Your task to perform on an android device: Open my contact list Image 0: 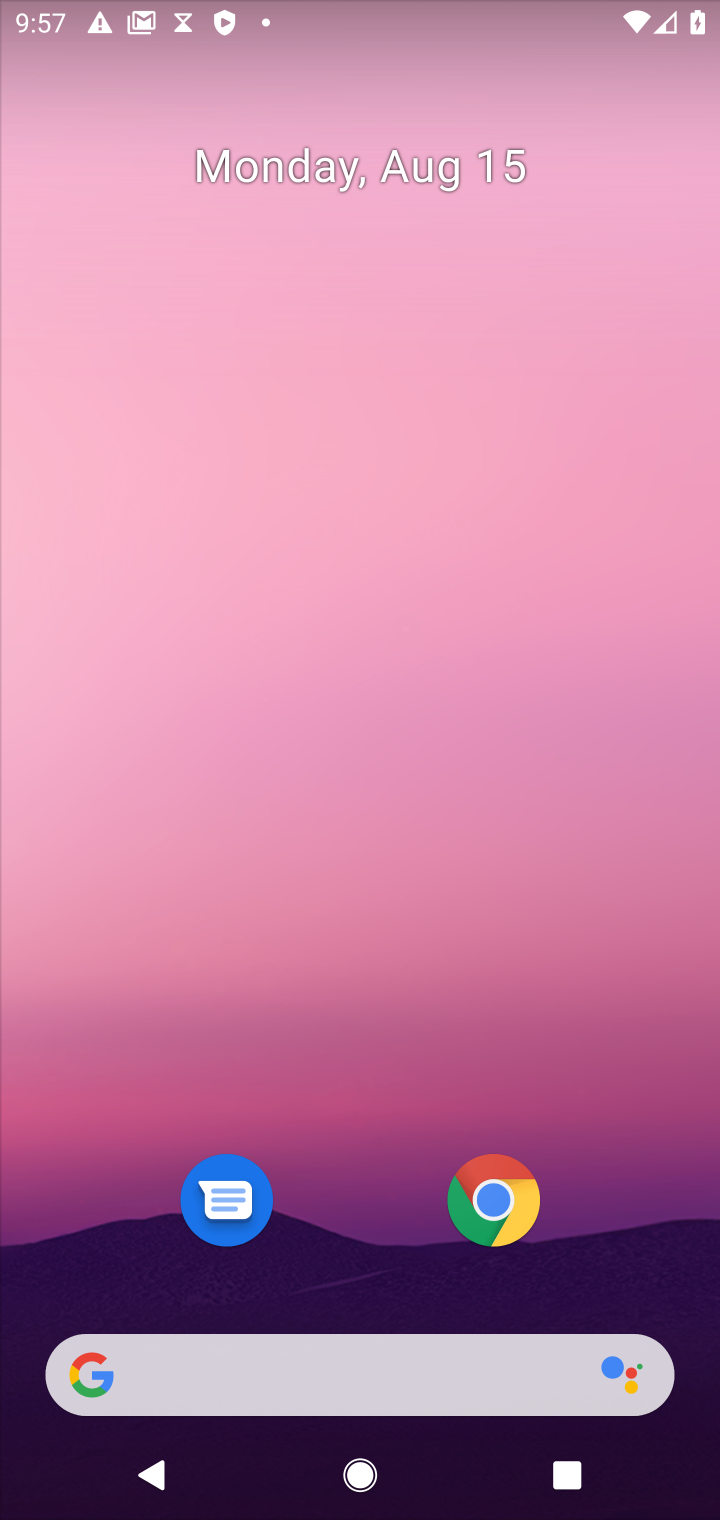
Step 0: drag from (339, 351) to (336, 171)
Your task to perform on an android device: Open my contact list Image 1: 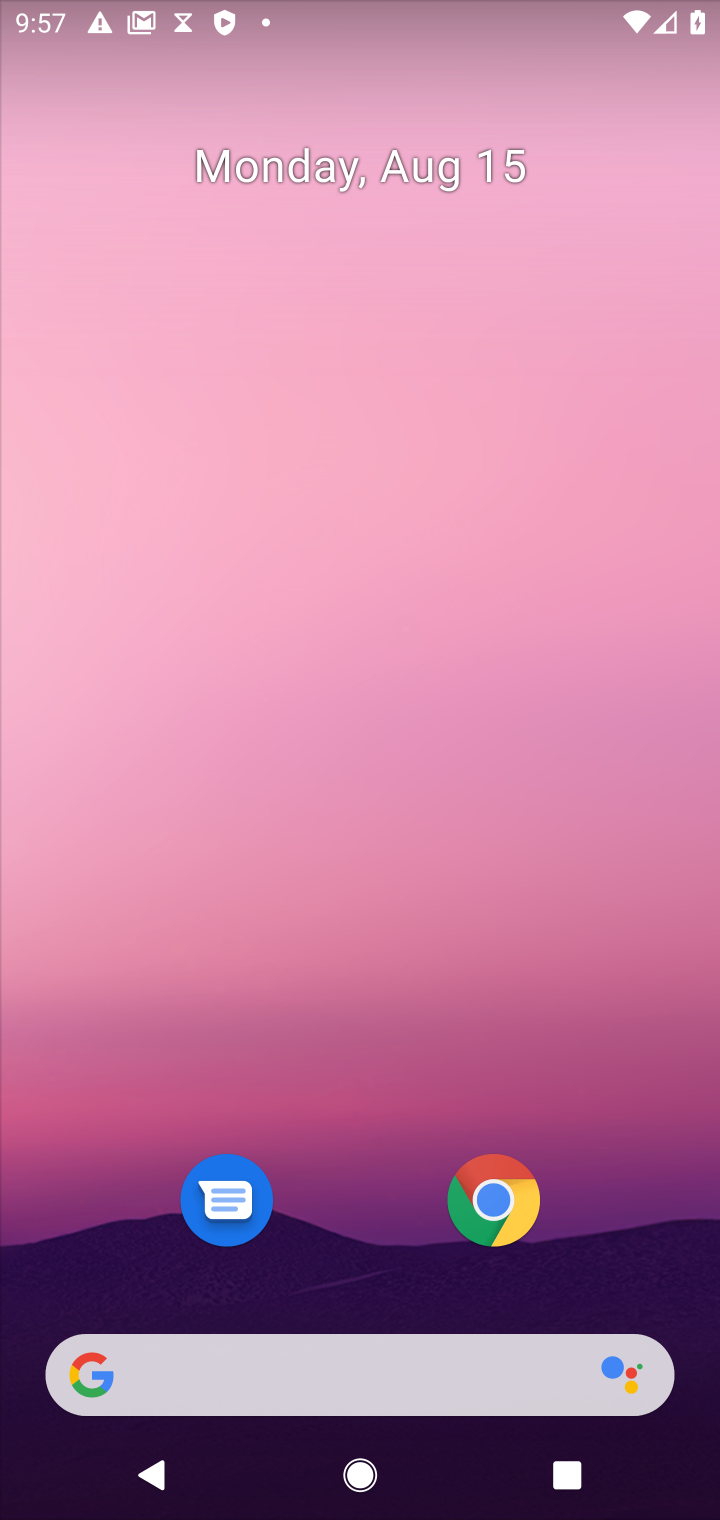
Step 1: drag from (340, 1173) to (309, 113)
Your task to perform on an android device: Open my contact list Image 2: 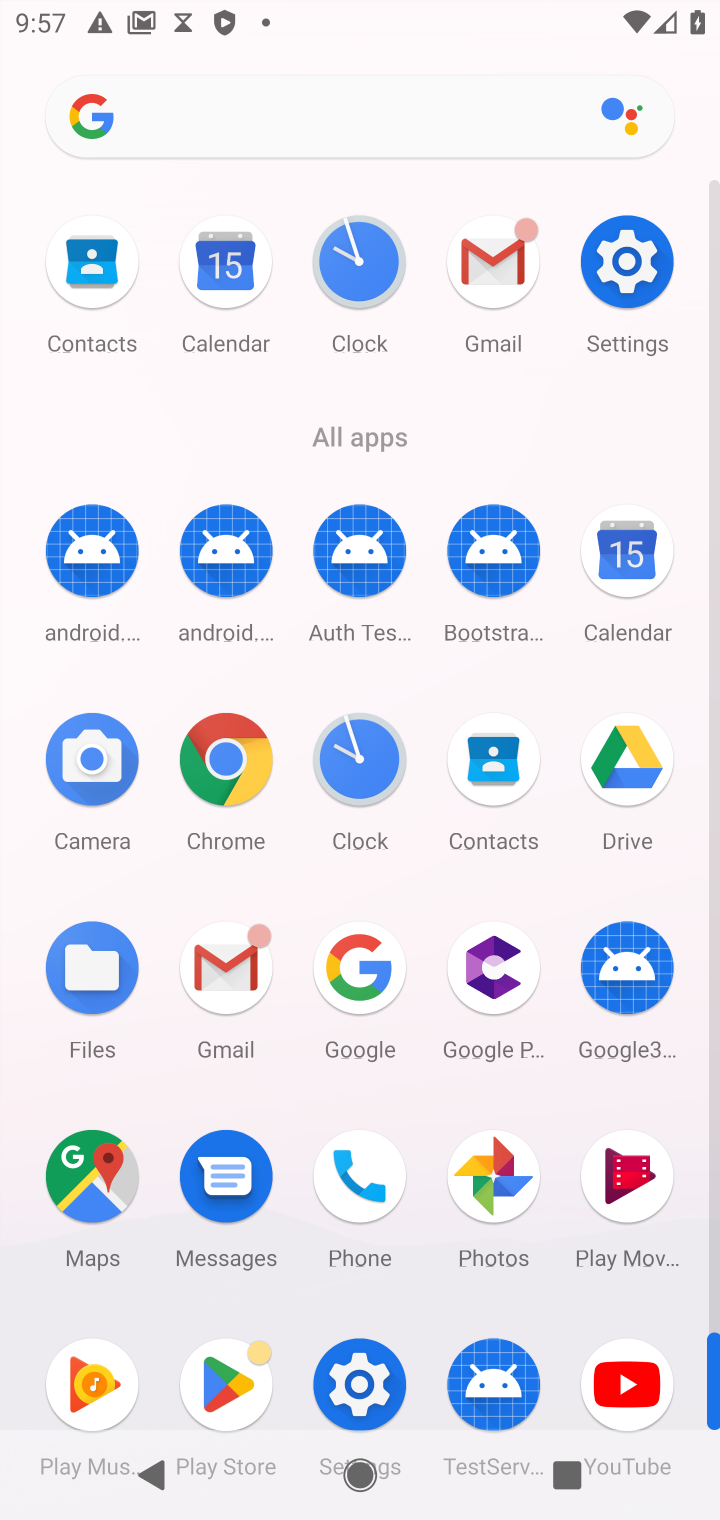
Step 2: click (473, 791)
Your task to perform on an android device: Open my contact list Image 3: 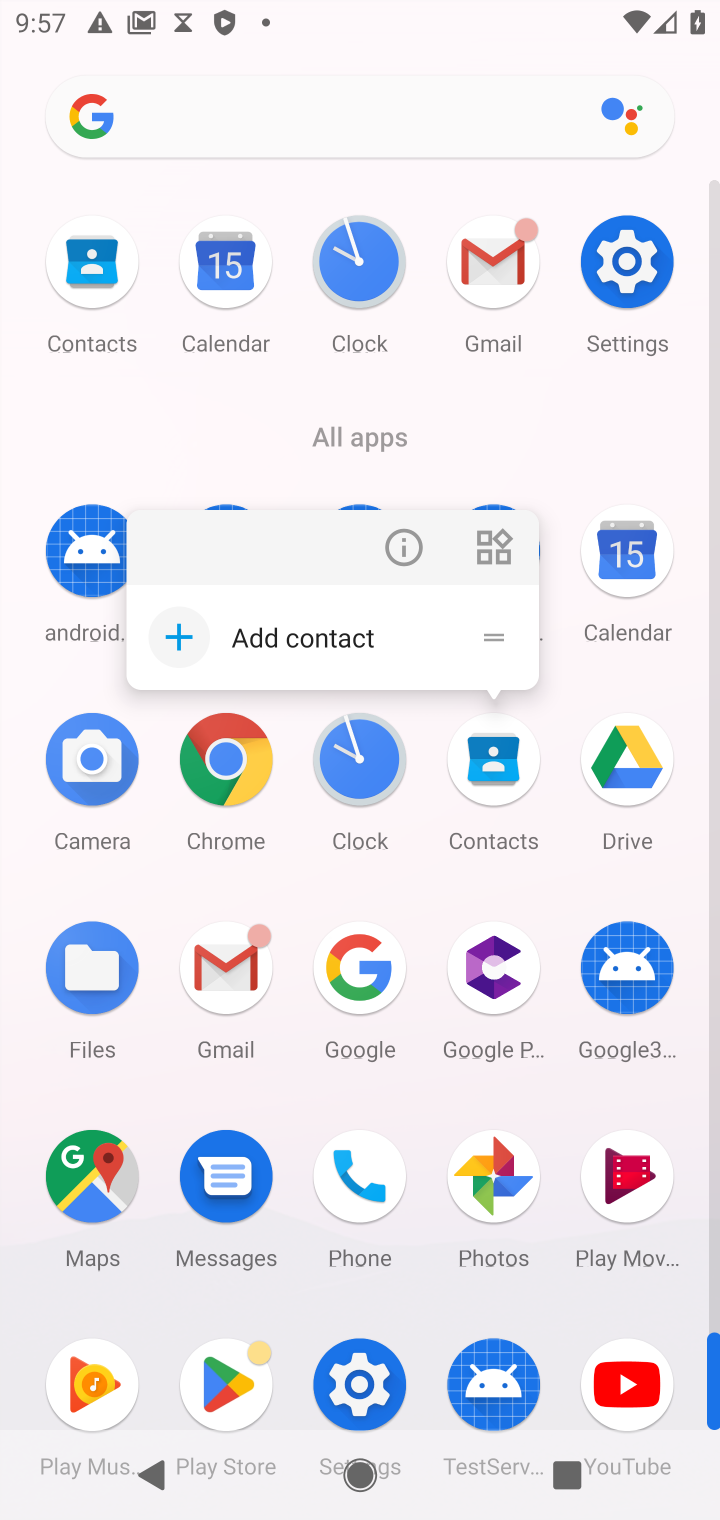
Step 3: click (473, 791)
Your task to perform on an android device: Open my contact list Image 4: 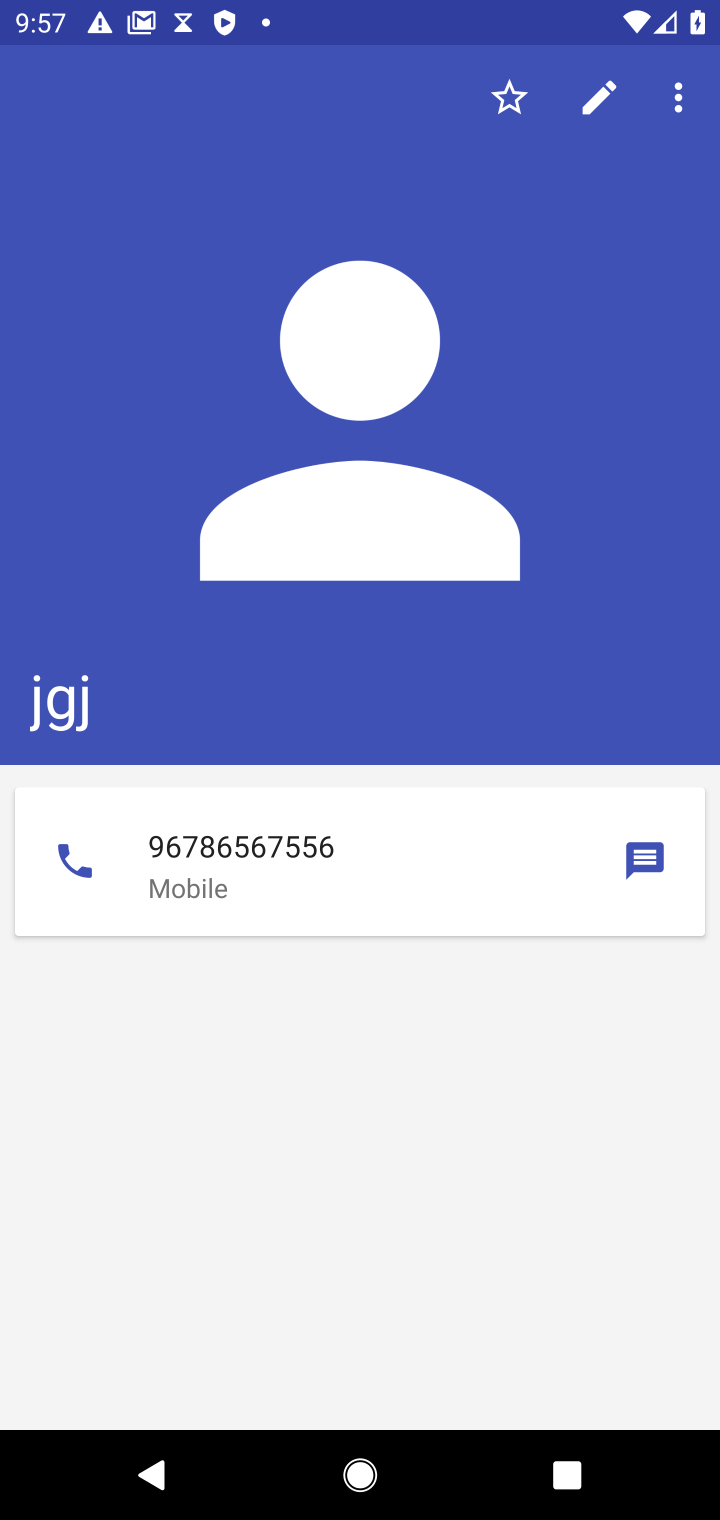
Step 4: task complete